Your task to perform on an android device: Open the calendar app, open the side menu, and click the "Day" option Image 0: 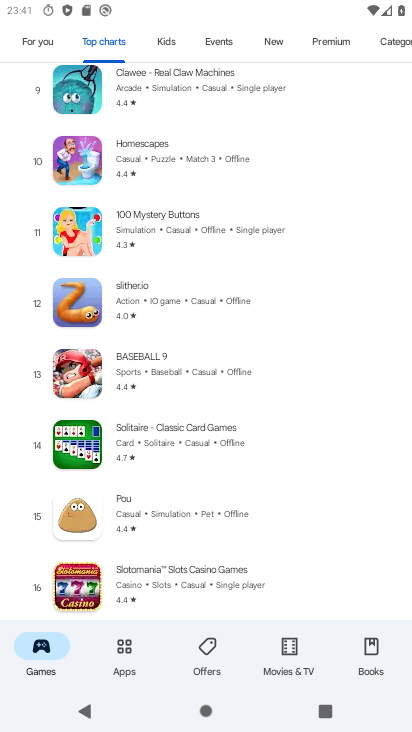
Step 0: press home button
Your task to perform on an android device: Open the calendar app, open the side menu, and click the "Day" option Image 1: 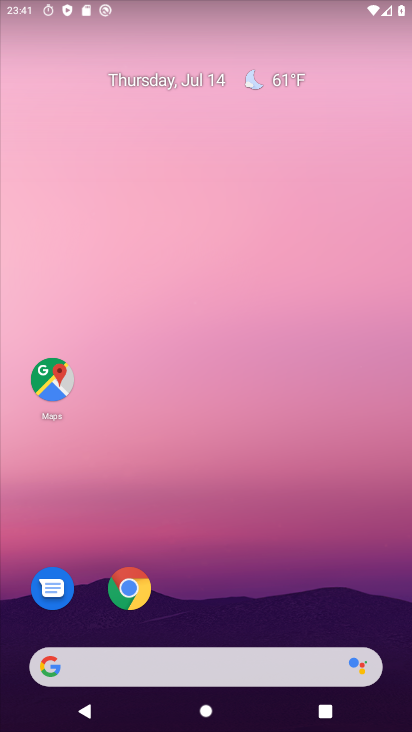
Step 1: drag from (253, 602) to (291, 30)
Your task to perform on an android device: Open the calendar app, open the side menu, and click the "Day" option Image 2: 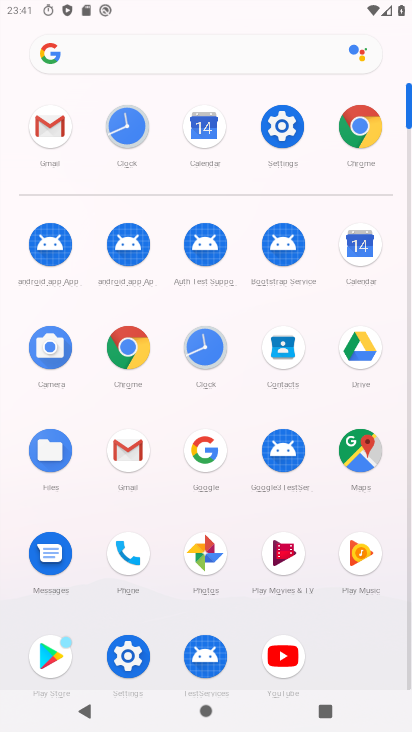
Step 2: click (350, 255)
Your task to perform on an android device: Open the calendar app, open the side menu, and click the "Day" option Image 3: 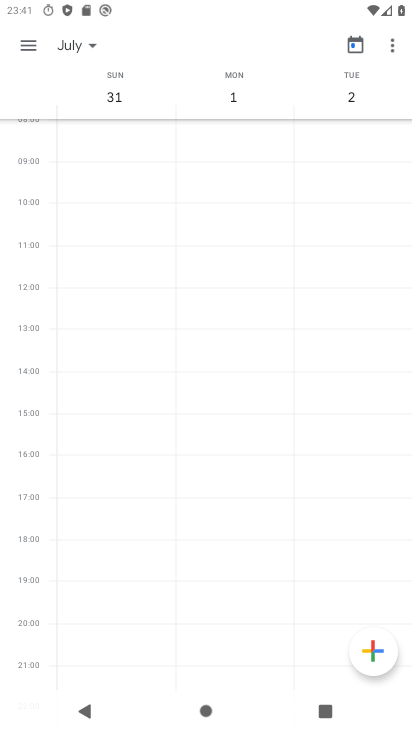
Step 3: click (31, 30)
Your task to perform on an android device: Open the calendar app, open the side menu, and click the "Day" option Image 4: 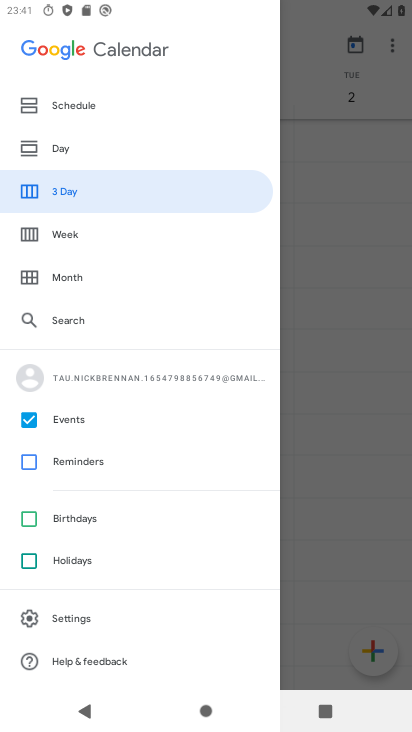
Step 4: click (59, 143)
Your task to perform on an android device: Open the calendar app, open the side menu, and click the "Day" option Image 5: 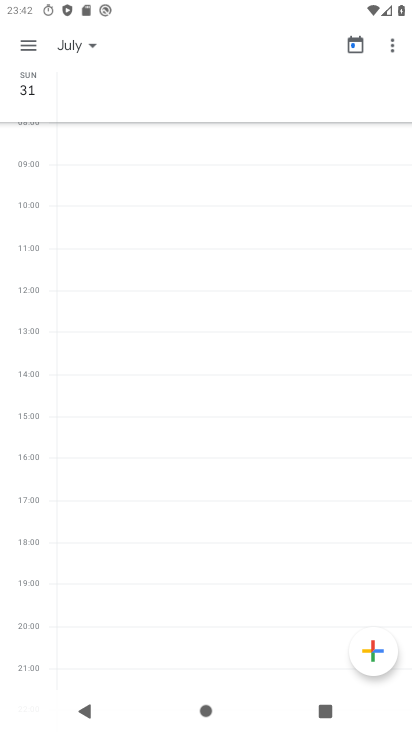
Step 5: task complete